Your task to perform on an android device: What is the recent news? Image 0: 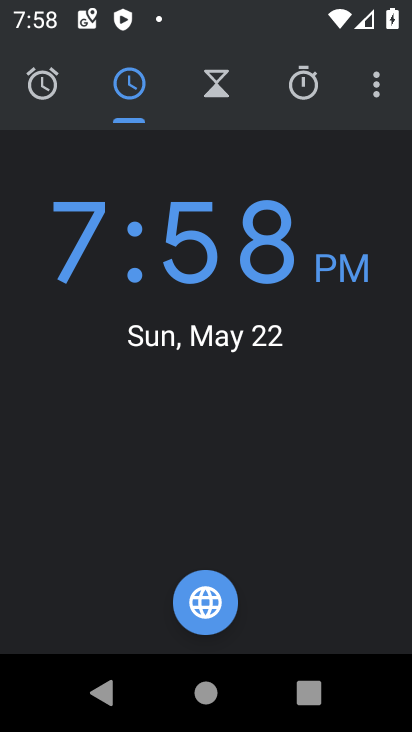
Step 0: press home button
Your task to perform on an android device: What is the recent news? Image 1: 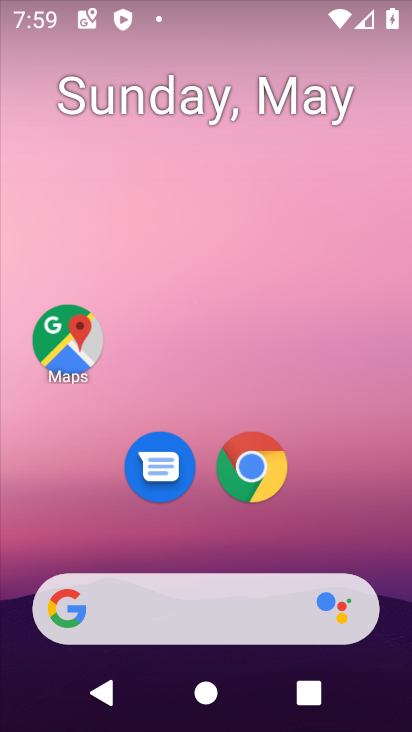
Step 1: click (251, 591)
Your task to perform on an android device: What is the recent news? Image 2: 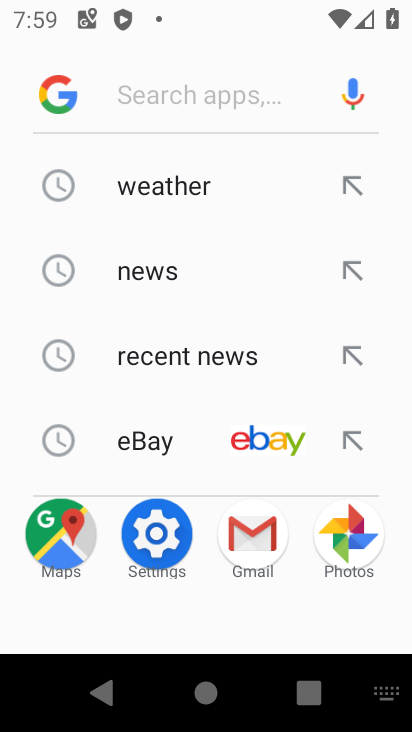
Step 2: click (180, 274)
Your task to perform on an android device: What is the recent news? Image 3: 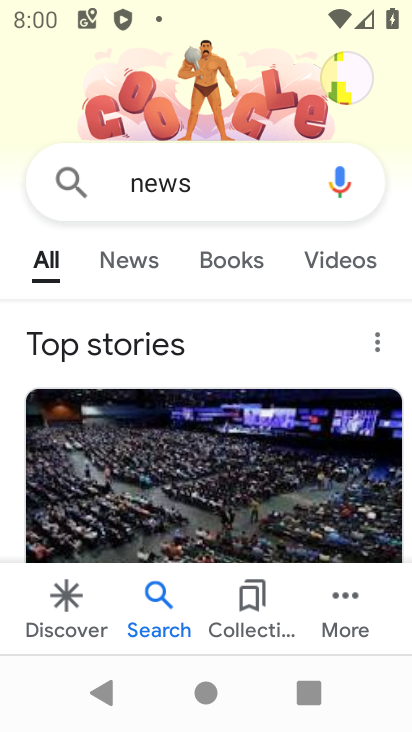
Step 3: task complete